Your task to perform on an android device: Turn on the flashlight Image 0: 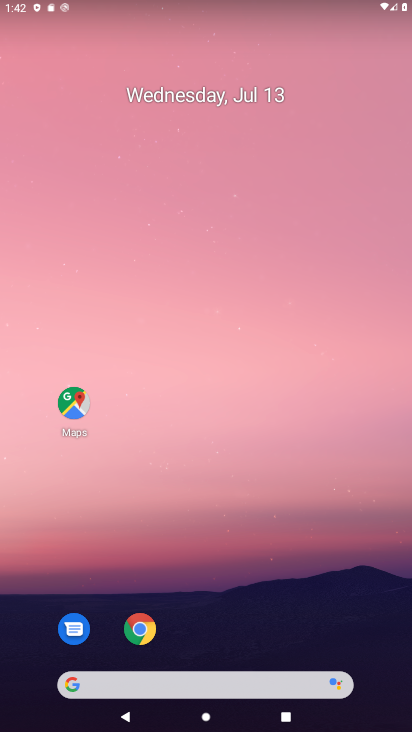
Step 0: drag from (196, 11) to (196, 562)
Your task to perform on an android device: Turn on the flashlight Image 1: 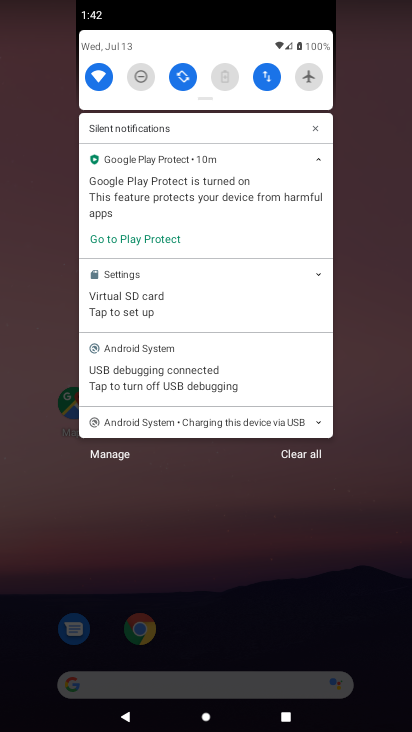
Step 1: task complete